Your task to perform on an android device: Open Google Chrome Image 0: 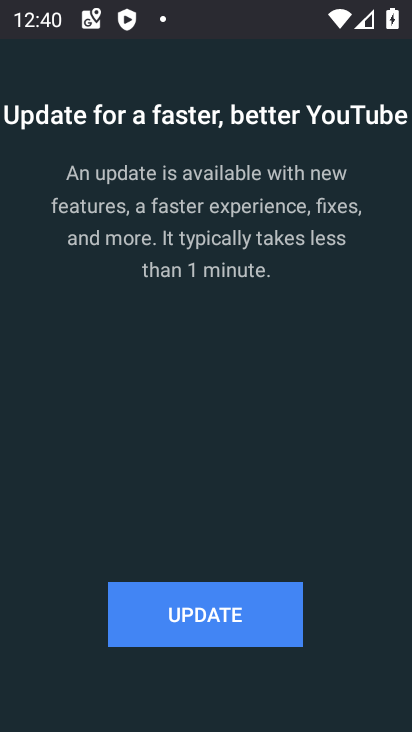
Step 0: press home button
Your task to perform on an android device: Open Google Chrome Image 1: 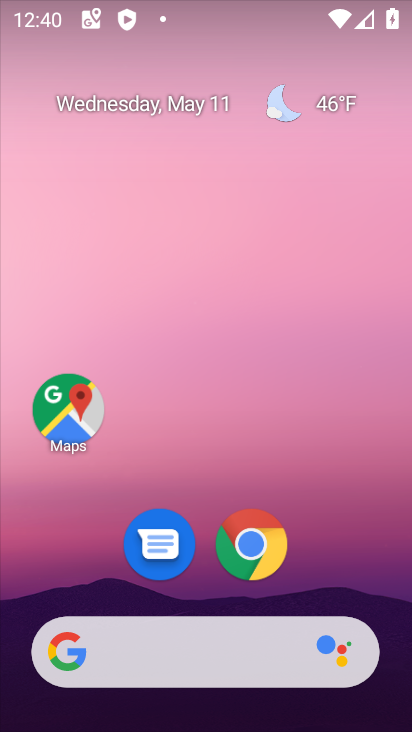
Step 1: click (249, 546)
Your task to perform on an android device: Open Google Chrome Image 2: 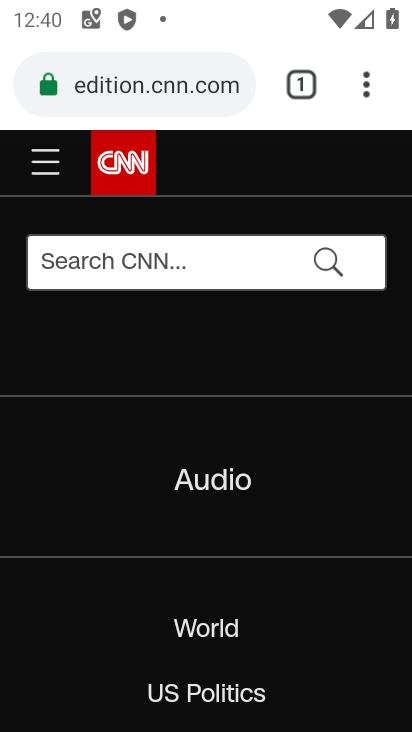
Step 2: task complete